Your task to perform on an android device: delete location history Image 0: 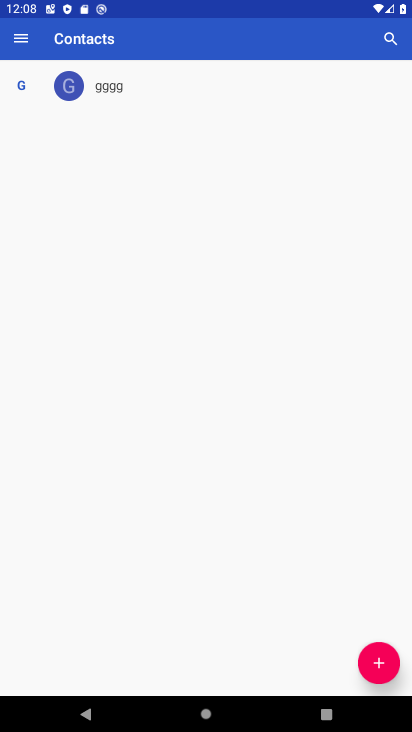
Step 0: press home button
Your task to perform on an android device: delete location history Image 1: 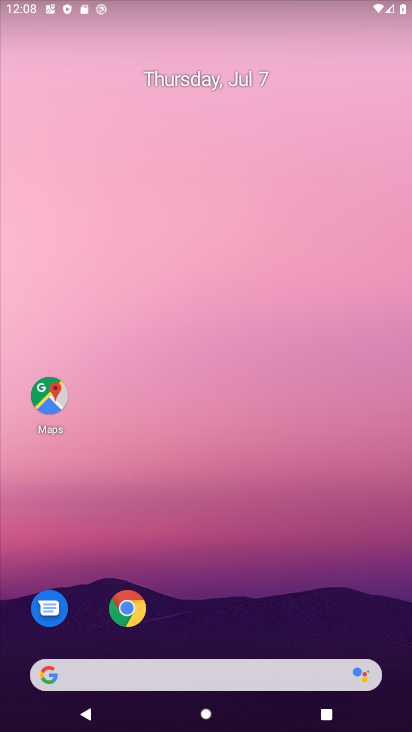
Step 1: drag from (167, 636) to (221, 136)
Your task to perform on an android device: delete location history Image 2: 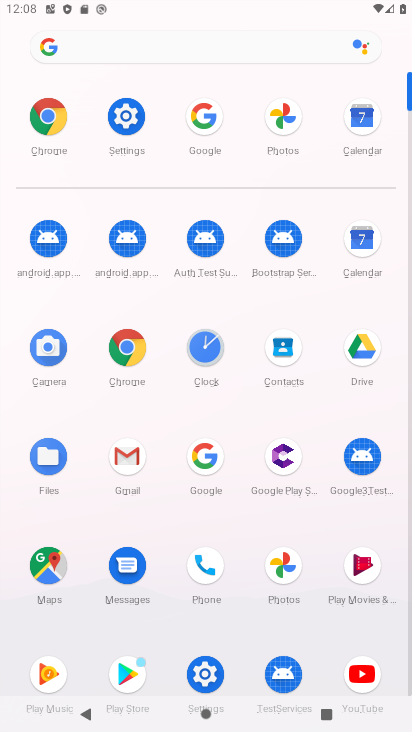
Step 2: click (129, 118)
Your task to perform on an android device: delete location history Image 3: 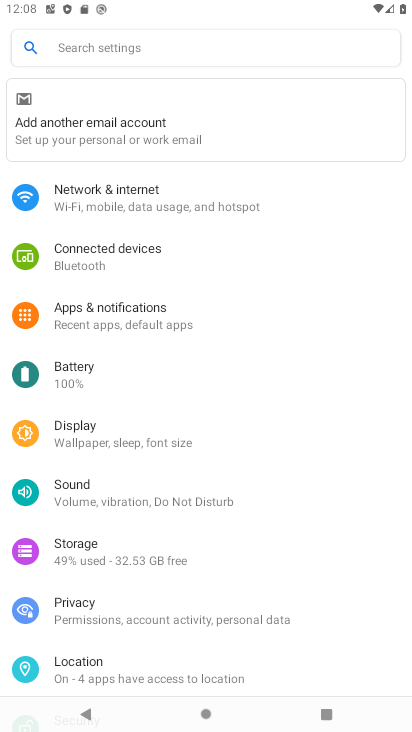
Step 3: click (63, 663)
Your task to perform on an android device: delete location history Image 4: 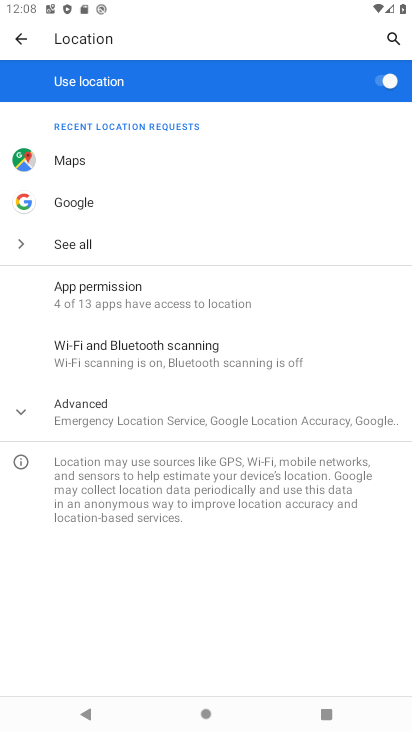
Step 4: click (21, 39)
Your task to perform on an android device: delete location history Image 5: 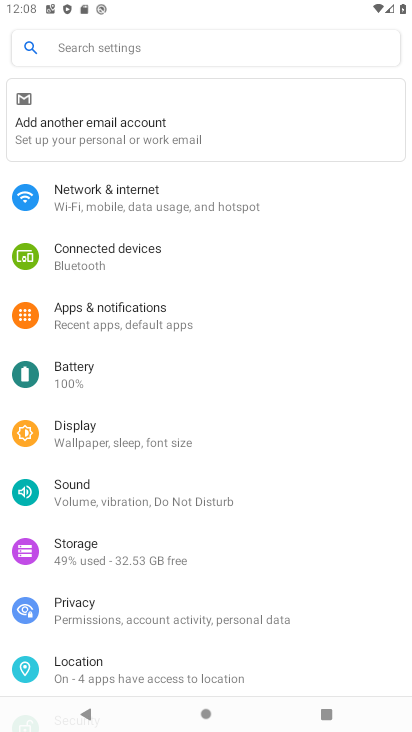
Step 5: click (90, 661)
Your task to perform on an android device: delete location history Image 6: 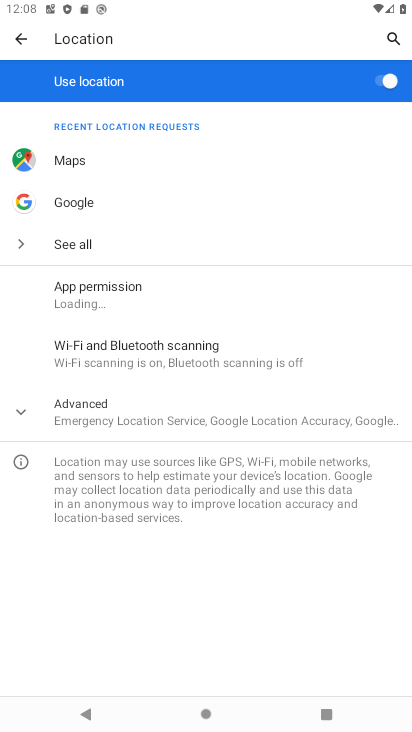
Step 6: click (79, 407)
Your task to perform on an android device: delete location history Image 7: 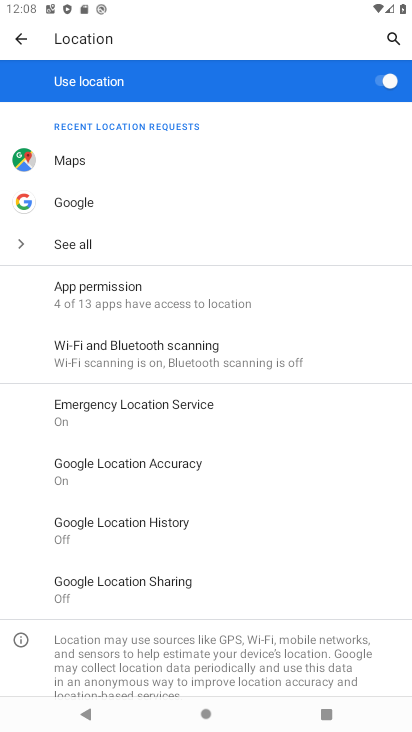
Step 7: click (128, 524)
Your task to perform on an android device: delete location history Image 8: 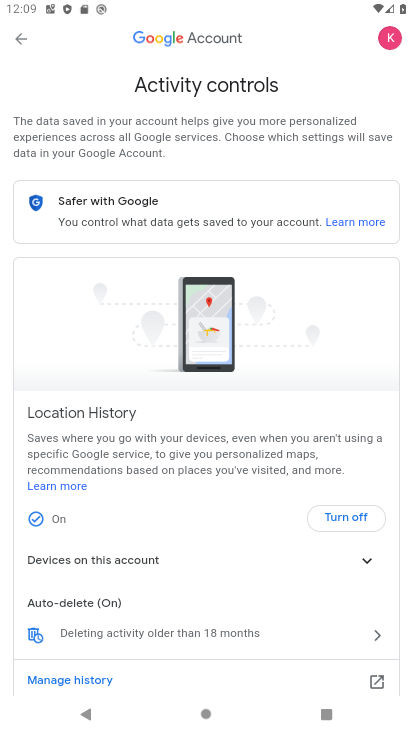
Step 8: click (98, 635)
Your task to perform on an android device: delete location history Image 9: 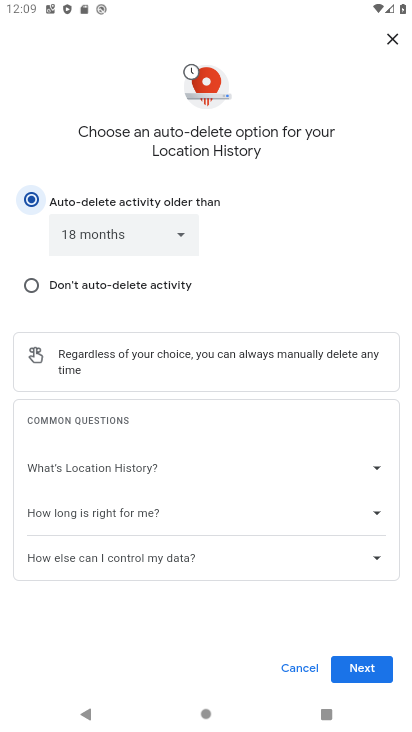
Step 9: click (363, 671)
Your task to perform on an android device: delete location history Image 10: 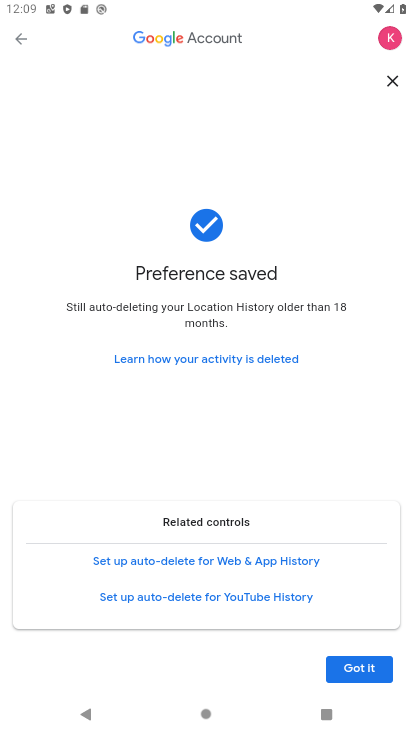
Step 10: click (354, 665)
Your task to perform on an android device: delete location history Image 11: 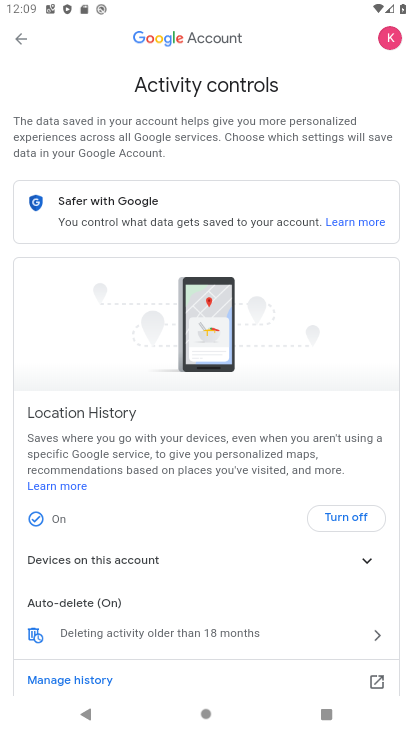
Step 11: task complete